Your task to perform on an android device: What's the weather going to be tomorrow? Image 0: 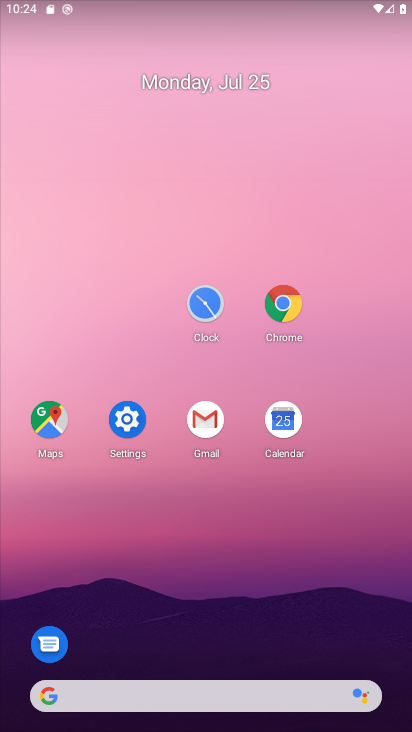
Step 0: drag from (2, 183) to (410, 199)
Your task to perform on an android device: What's the weather going to be tomorrow? Image 1: 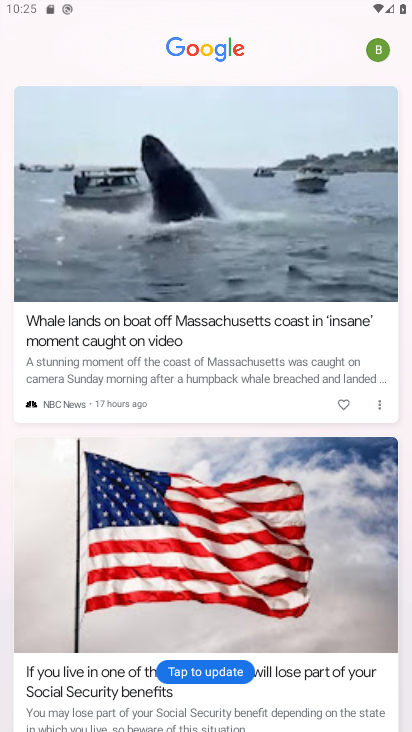
Step 1: task complete